Your task to perform on an android device: Go to Google maps Image 0: 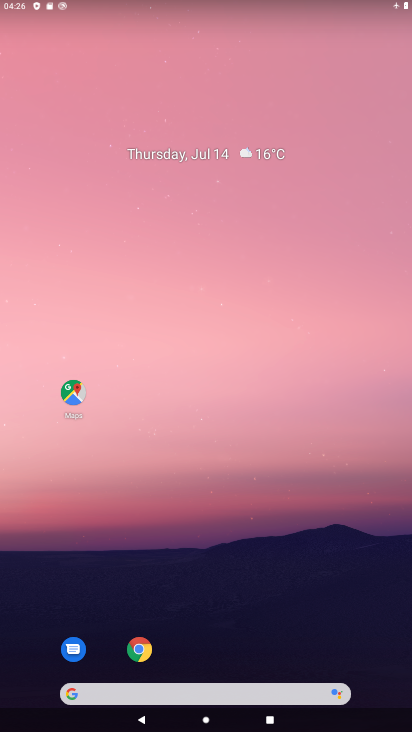
Step 0: drag from (213, 650) to (186, 5)
Your task to perform on an android device: Go to Google maps Image 1: 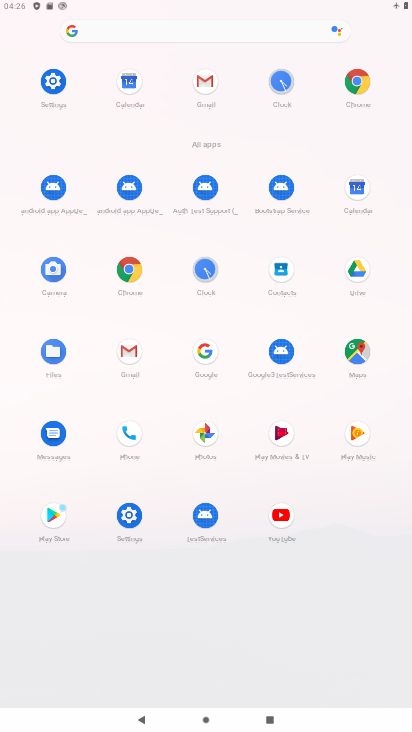
Step 1: click (364, 351)
Your task to perform on an android device: Go to Google maps Image 2: 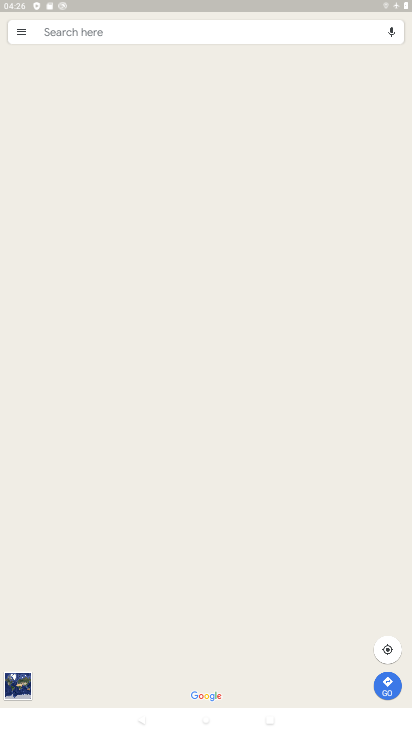
Step 2: task complete